Your task to perform on an android device: Open notification settings Image 0: 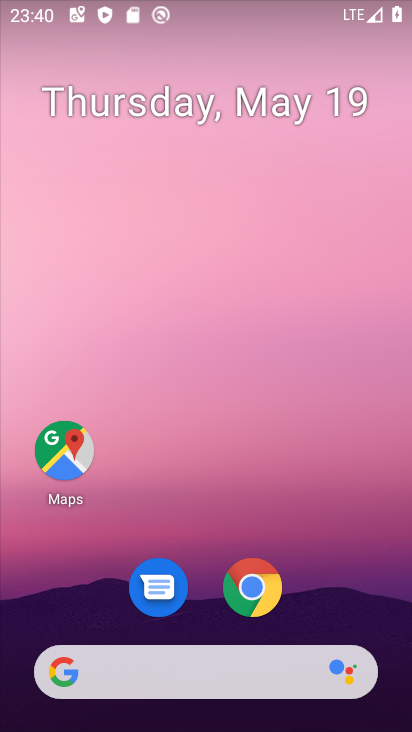
Step 0: drag from (269, 706) to (238, 162)
Your task to perform on an android device: Open notification settings Image 1: 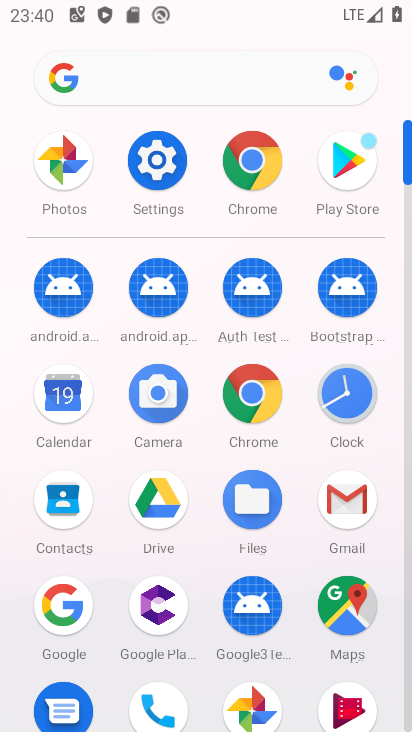
Step 1: click (161, 162)
Your task to perform on an android device: Open notification settings Image 2: 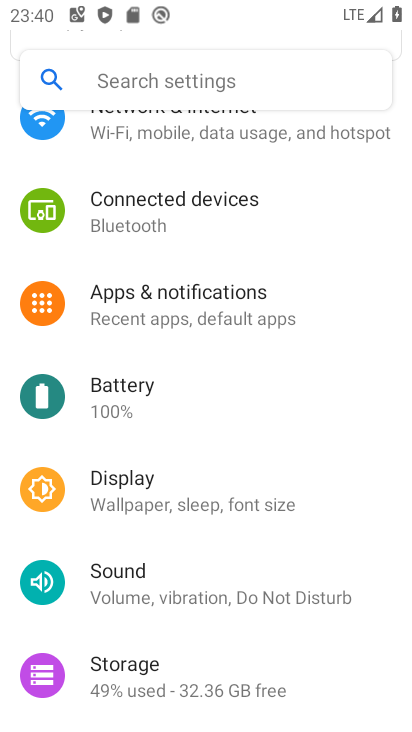
Step 2: click (135, 86)
Your task to perform on an android device: Open notification settings Image 3: 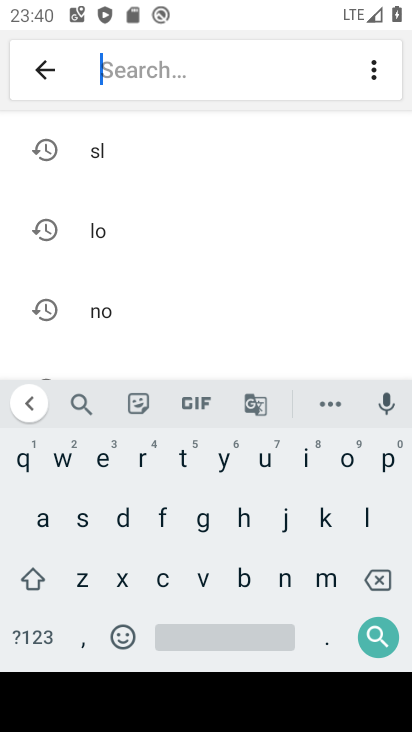
Step 3: click (285, 579)
Your task to perform on an android device: Open notification settings Image 4: 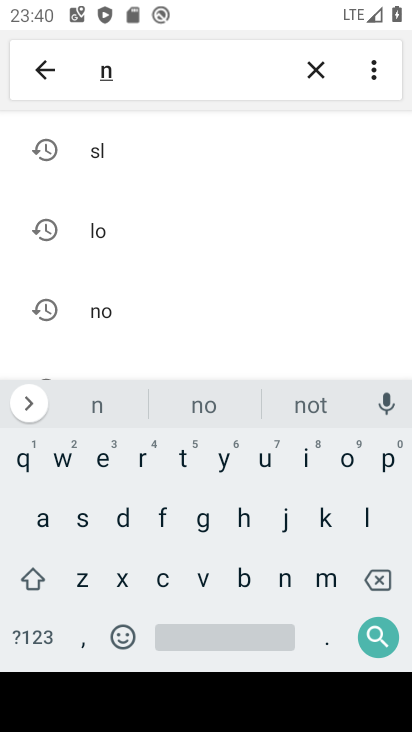
Step 4: click (343, 458)
Your task to perform on an android device: Open notification settings Image 5: 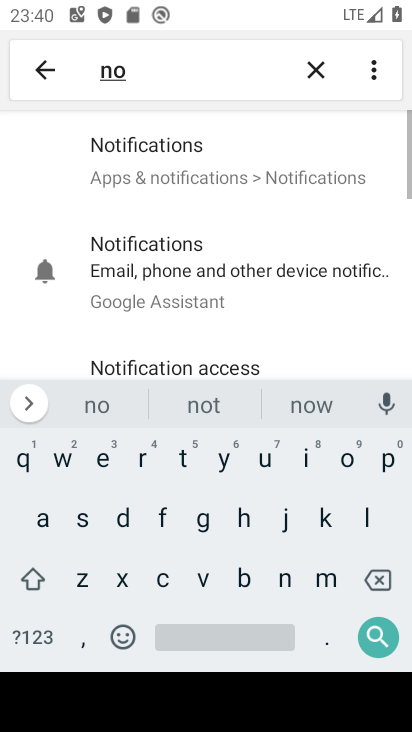
Step 5: click (172, 175)
Your task to perform on an android device: Open notification settings Image 6: 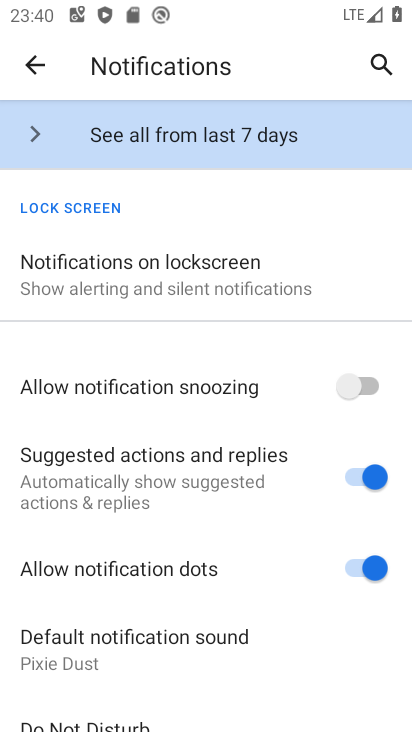
Step 6: click (149, 289)
Your task to perform on an android device: Open notification settings Image 7: 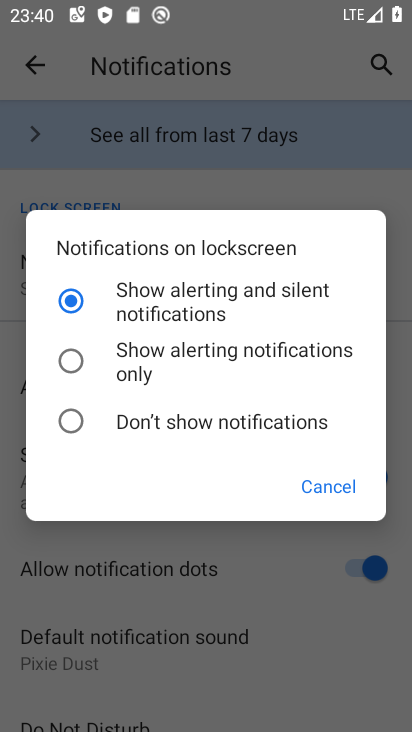
Step 7: task complete